Your task to perform on an android device: turn off improve location accuracy Image 0: 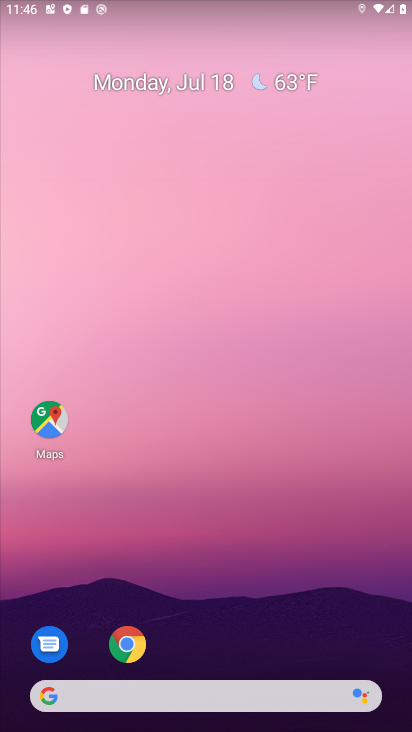
Step 0: drag from (196, 722) to (194, 246)
Your task to perform on an android device: turn off improve location accuracy Image 1: 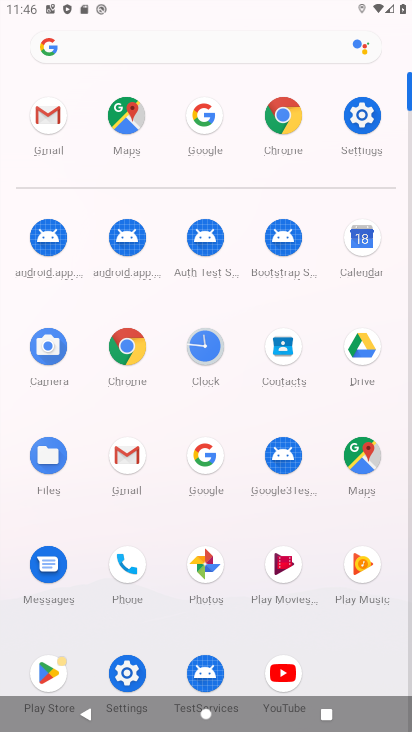
Step 1: click (373, 105)
Your task to perform on an android device: turn off improve location accuracy Image 2: 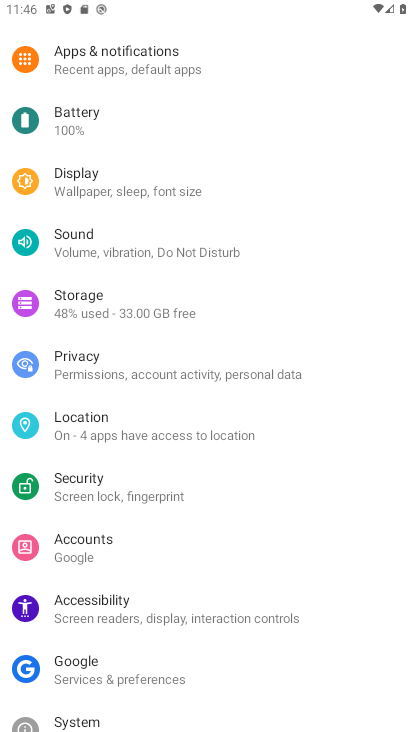
Step 2: click (90, 420)
Your task to perform on an android device: turn off improve location accuracy Image 3: 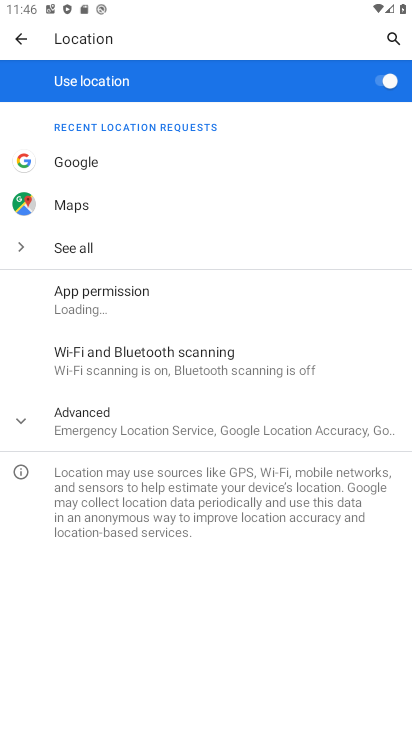
Step 3: click (140, 428)
Your task to perform on an android device: turn off improve location accuracy Image 4: 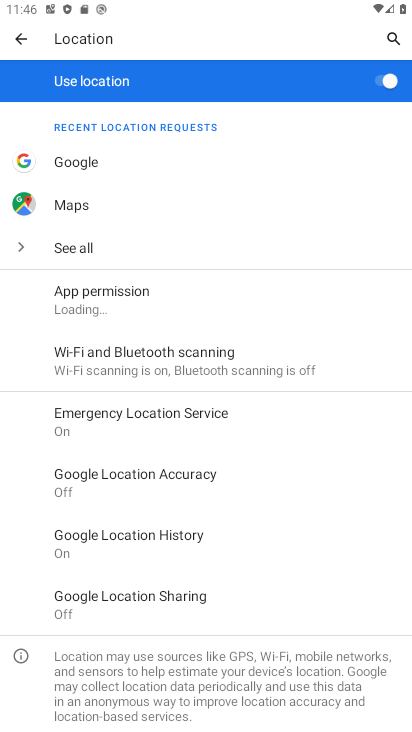
Step 4: click (181, 471)
Your task to perform on an android device: turn off improve location accuracy Image 5: 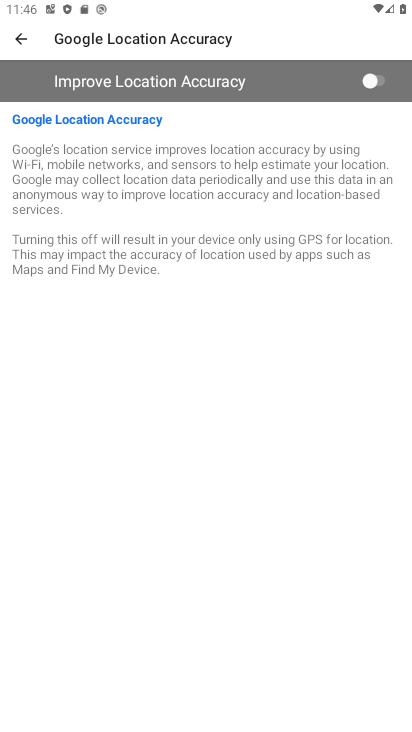
Step 5: task complete